Your task to perform on an android device: turn off priority inbox in the gmail app Image 0: 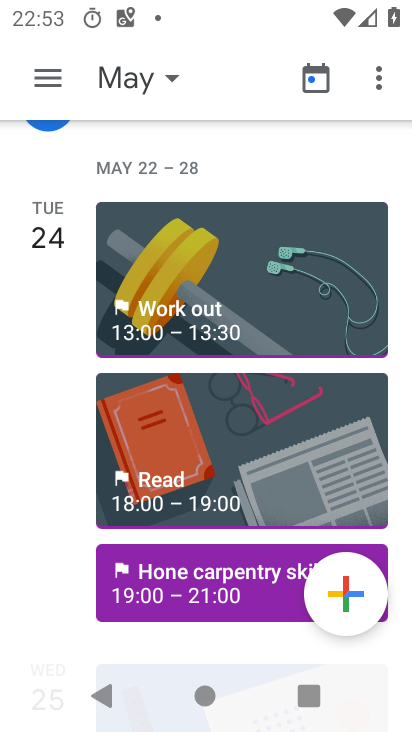
Step 0: press home button
Your task to perform on an android device: turn off priority inbox in the gmail app Image 1: 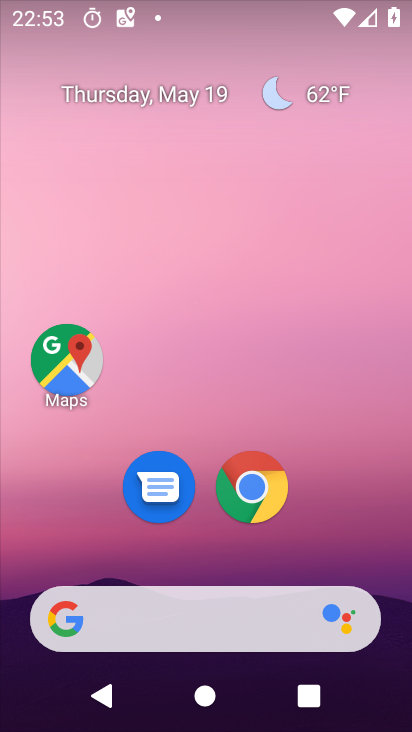
Step 1: drag from (333, 548) to (292, 132)
Your task to perform on an android device: turn off priority inbox in the gmail app Image 2: 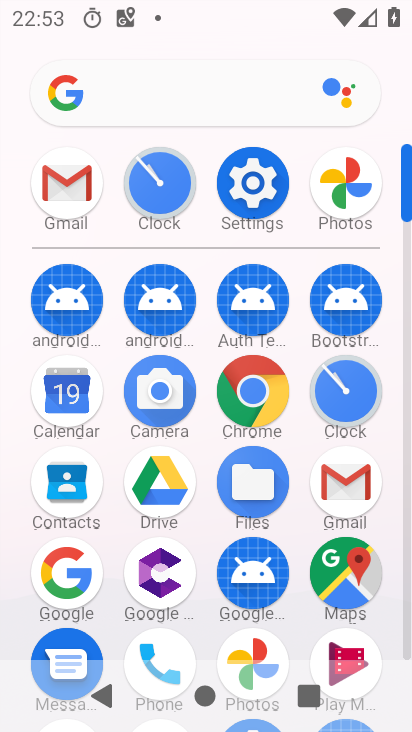
Step 2: click (58, 183)
Your task to perform on an android device: turn off priority inbox in the gmail app Image 3: 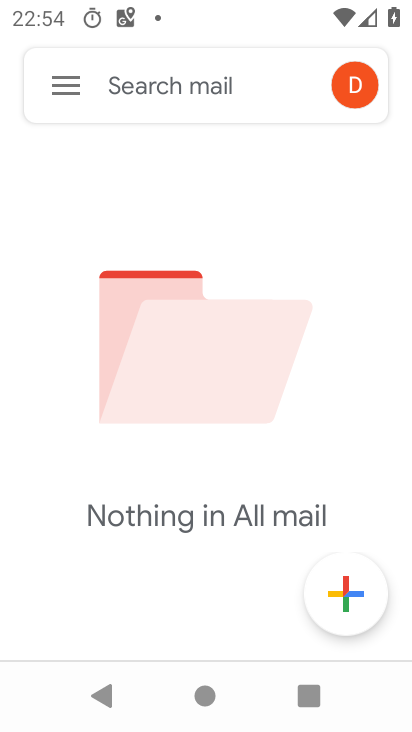
Step 3: click (71, 84)
Your task to perform on an android device: turn off priority inbox in the gmail app Image 4: 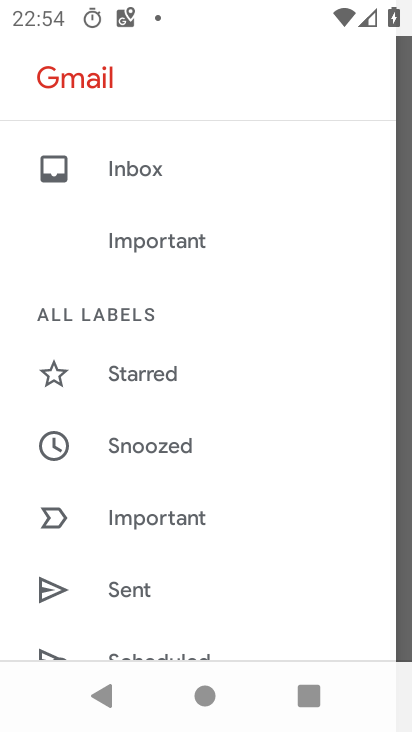
Step 4: drag from (236, 593) to (237, 316)
Your task to perform on an android device: turn off priority inbox in the gmail app Image 5: 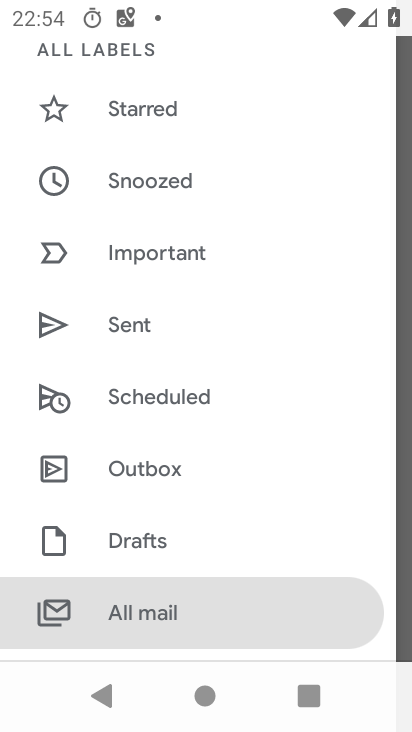
Step 5: drag from (235, 537) to (223, 191)
Your task to perform on an android device: turn off priority inbox in the gmail app Image 6: 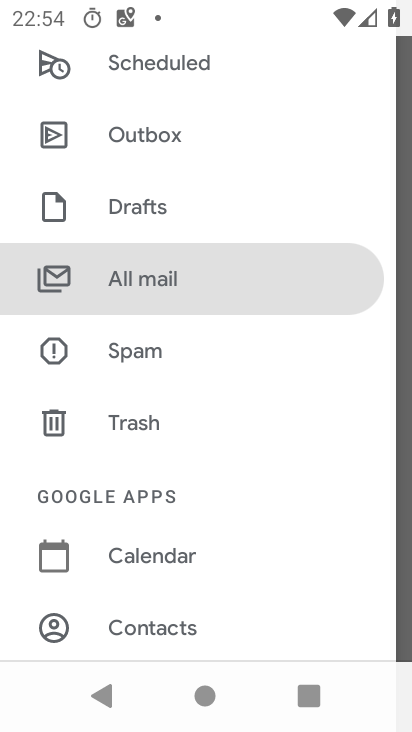
Step 6: drag from (220, 612) to (213, 381)
Your task to perform on an android device: turn off priority inbox in the gmail app Image 7: 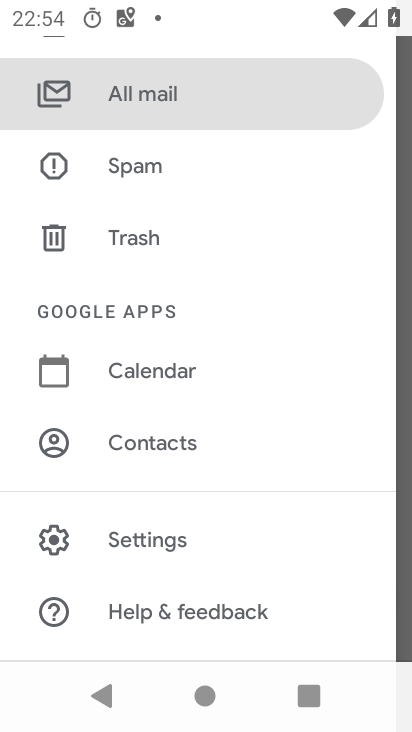
Step 7: click (170, 541)
Your task to perform on an android device: turn off priority inbox in the gmail app Image 8: 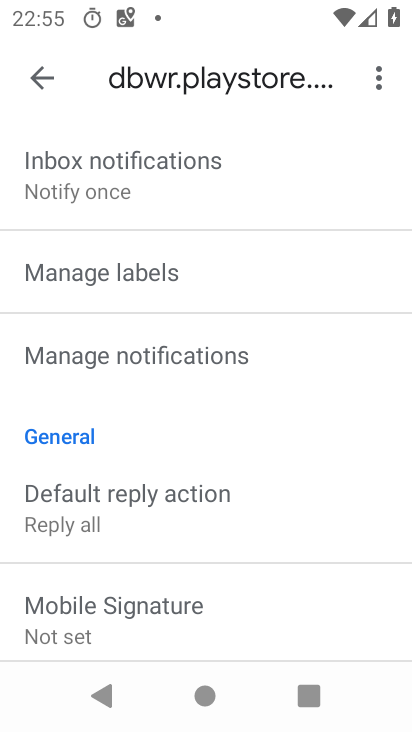
Step 8: drag from (328, 259) to (317, 502)
Your task to perform on an android device: turn off priority inbox in the gmail app Image 9: 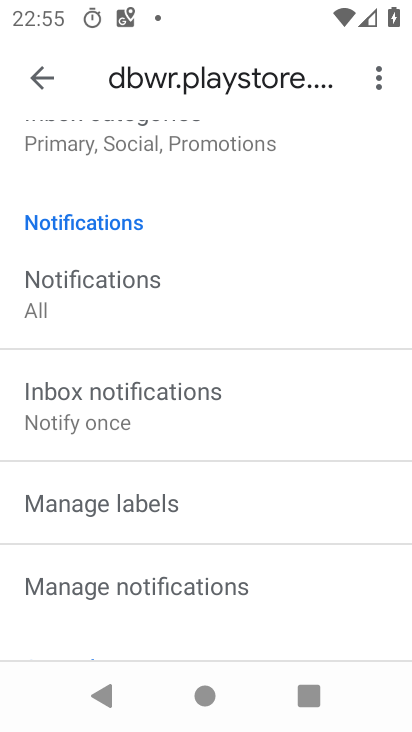
Step 9: drag from (274, 262) to (291, 495)
Your task to perform on an android device: turn off priority inbox in the gmail app Image 10: 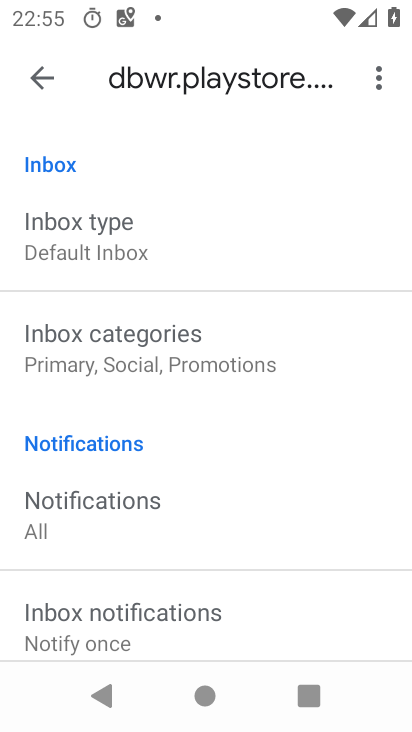
Step 10: click (150, 261)
Your task to perform on an android device: turn off priority inbox in the gmail app Image 11: 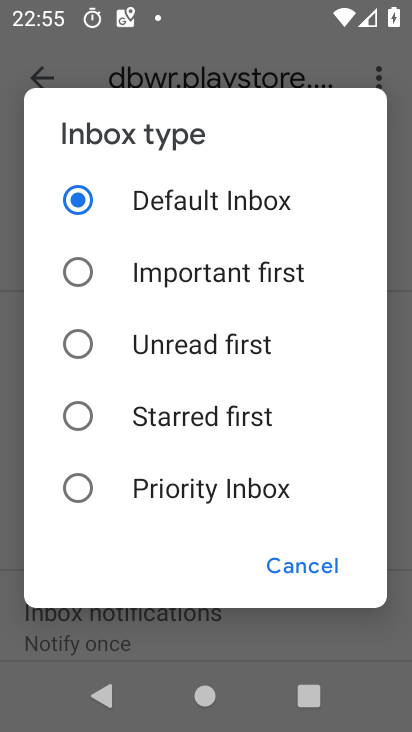
Step 11: click (267, 206)
Your task to perform on an android device: turn off priority inbox in the gmail app Image 12: 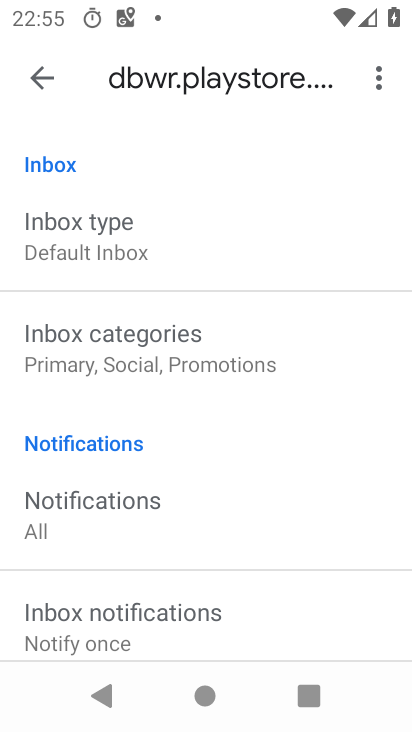
Step 12: task complete